Your task to perform on an android device: Open the Play Movies app and select the watchlist tab. Image 0: 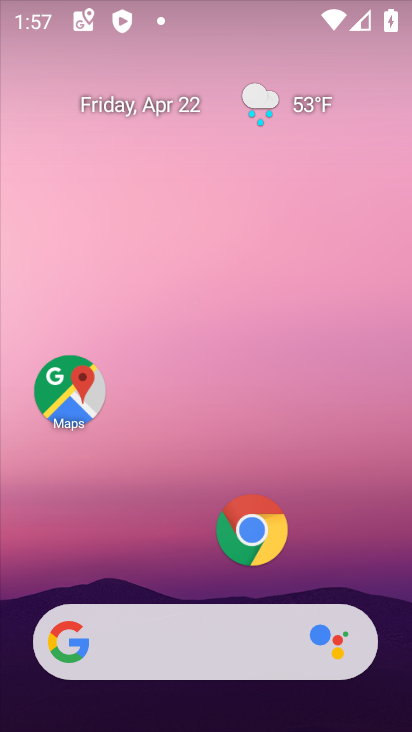
Step 0: click (243, 543)
Your task to perform on an android device: Open the Play Movies app and select the watchlist tab. Image 1: 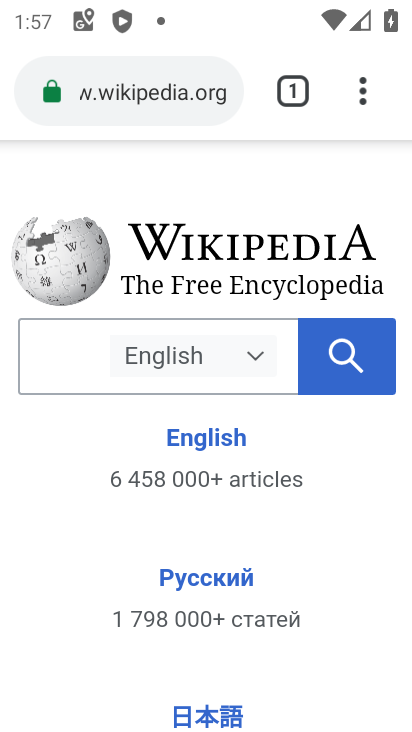
Step 1: press home button
Your task to perform on an android device: Open the Play Movies app and select the watchlist tab. Image 2: 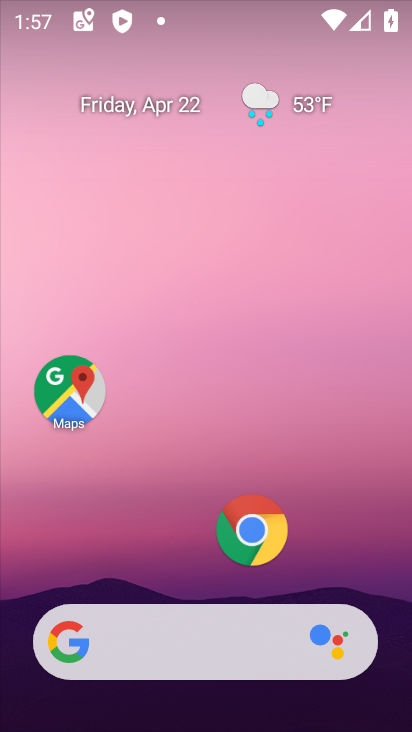
Step 2: drag from (211, 640) to (191, 154)
Your task to perform on an android device: Open the Play Movies app and select the watchlist tab. Image 3: 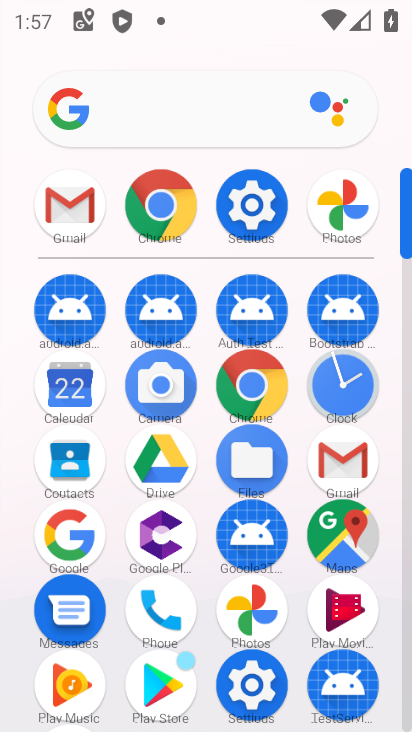
Step 3: click (326, 607)
Your task to perform on an android device: Open the Play Movies app and select the watchlist tab. Image 4: 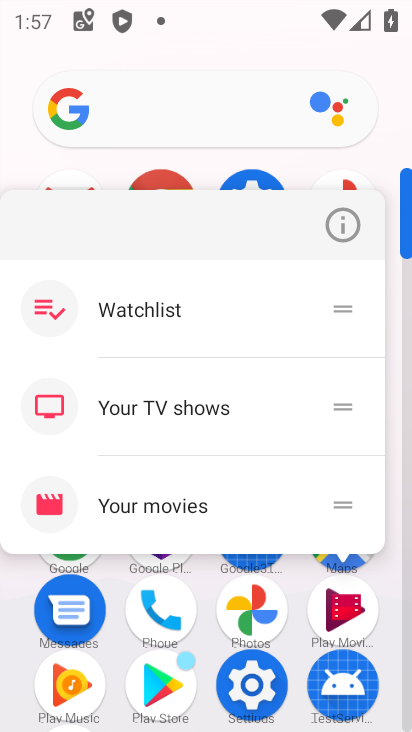
Step 4: click (343, 611)
Your task to perform on an android device: Open the Play Movies app and select the watchlist tab. Image 5: 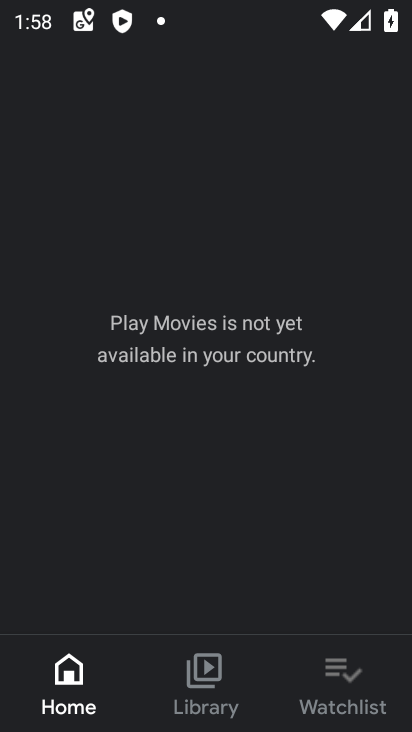
Step 5: click (323, 678)
Your task to perform on an android device: Open the Play Movies app and select the watchlist tab. Image 6: 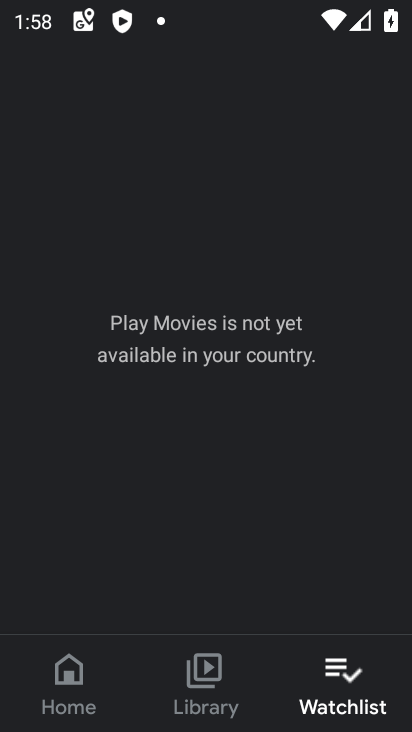
Step 6: task complete